Your task to perform on an android device: turn off notifications settings in the gmail app Image 0: 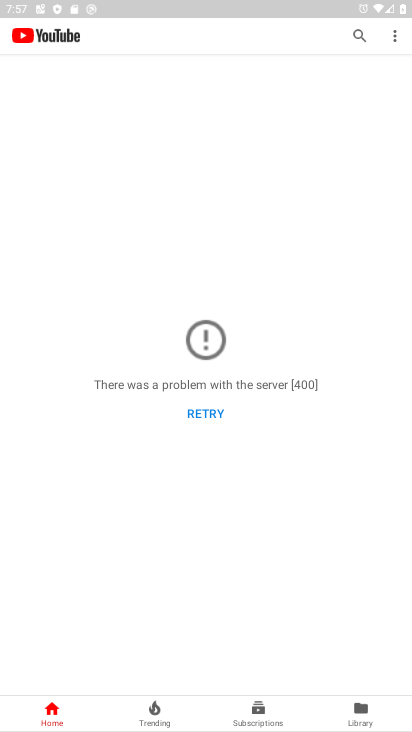
Step 0: press home button
Your task to perform on an android device: turn off notifications settings in the gmail app Image 1: 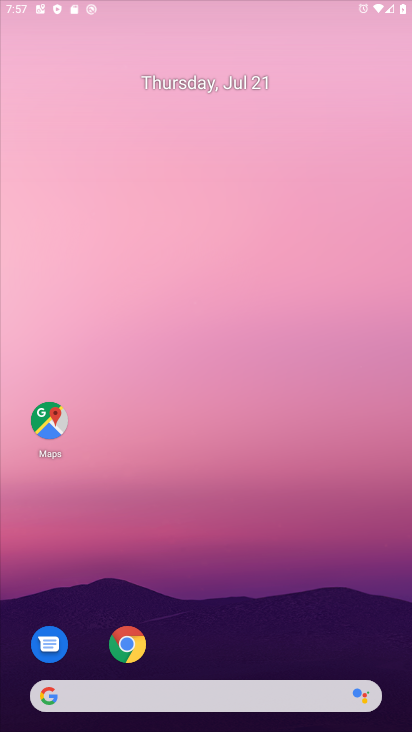
Step 1: drag from (158, 589) to (158, 236)
Your task to perform on an android device: turn off notifications settings in the gmail app Image 2: 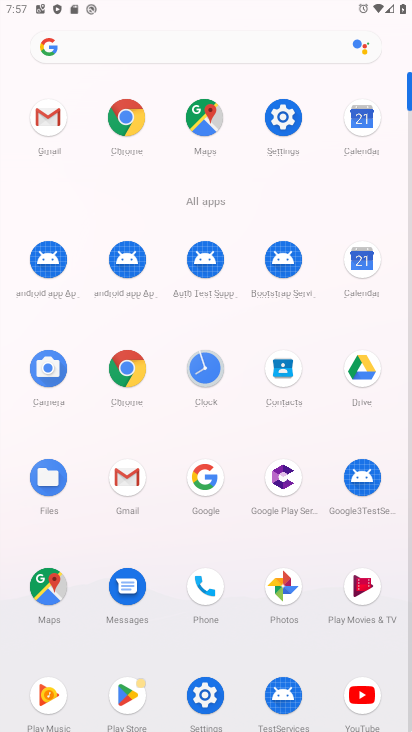
Step 2: click (46, 99)
Your task to perform on an android device: turn off notifications settings in the gmail app Image 3: 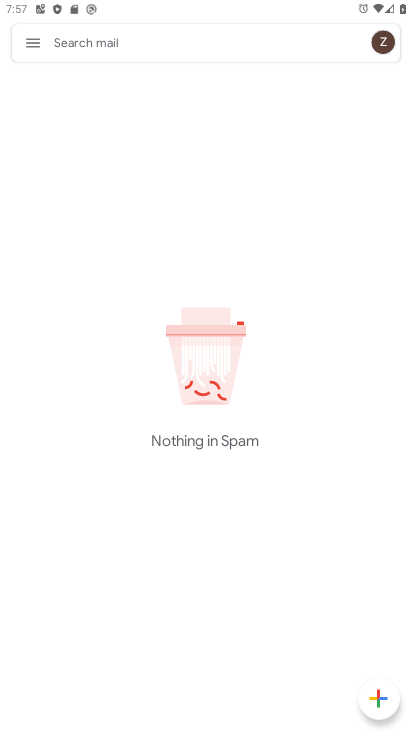
Step 3: click (31, 25)
Your task to perform on an android device: turn off notifications settings in the gmail app Image 4: 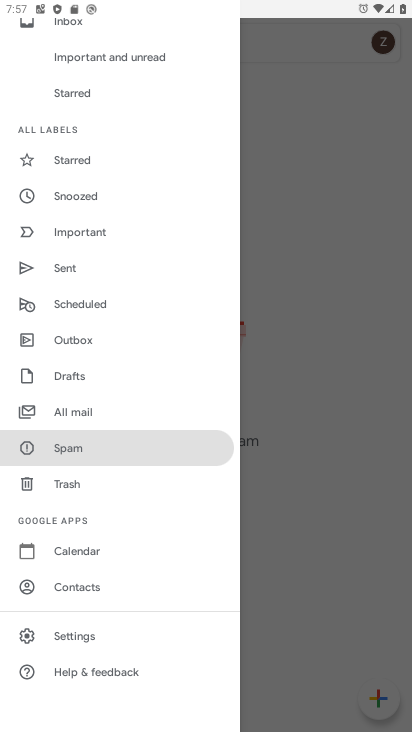
Step 4: click (84, 639)
Your task to perform on an android device: turn off notifications settings in the gmail app Image 5: 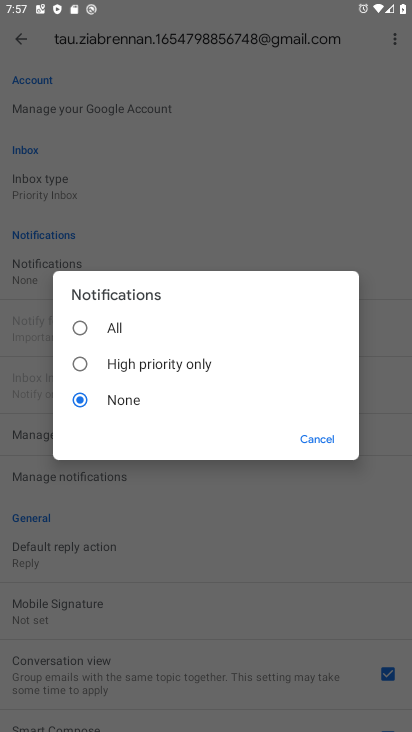
Step 5: click (113, 315)
Your task to perform on an android device: turn off notifications settings in the gmail app Image 6: 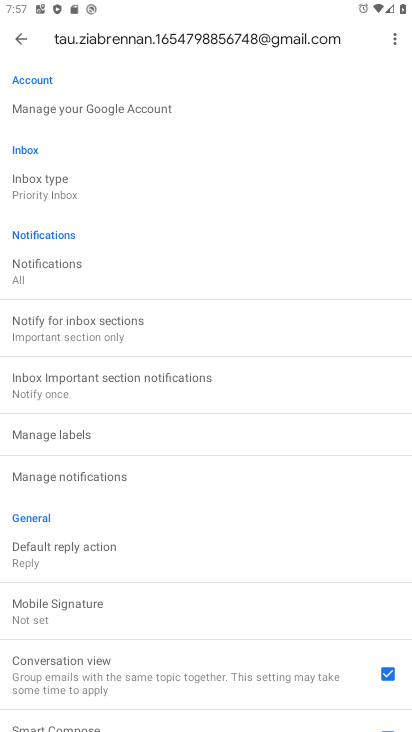
Step 6: click (82, 268)
Your task to perform on an android device: turn off notifications settings in the gmail app Image 7: 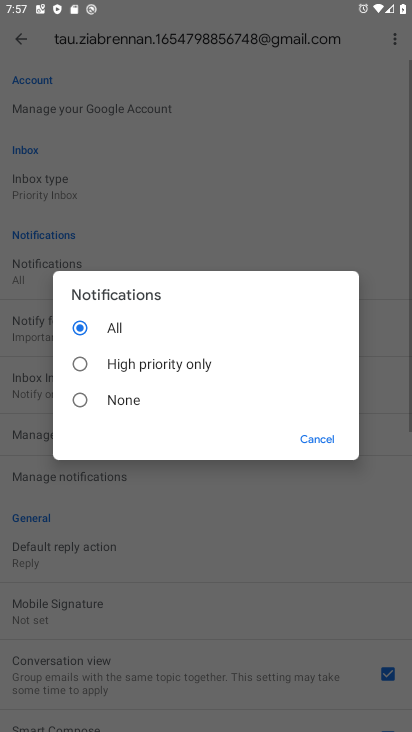
Step 7: click (102, 407)
Your task to perform on an android device: turn off notifications settings in the gmail app Image 8: 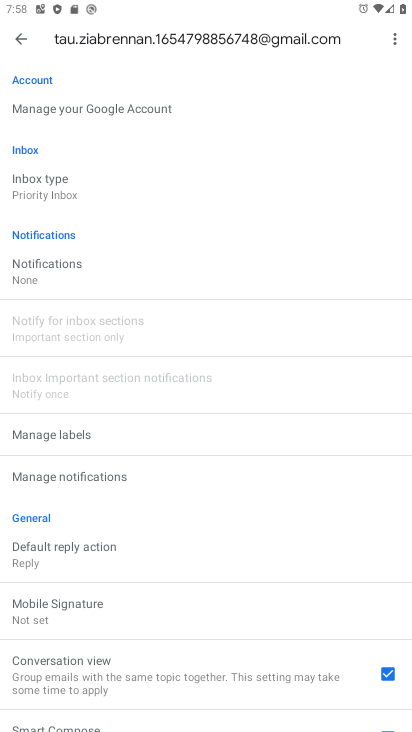
Step 8: task complete